Your task to perform on an android device: turn on location history Image 0: 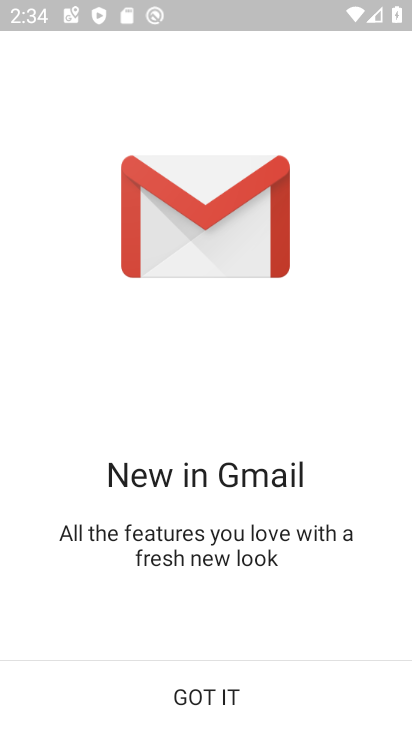
Step 0: press home button
Your task to perform on an android device: turn on location history Image 1: 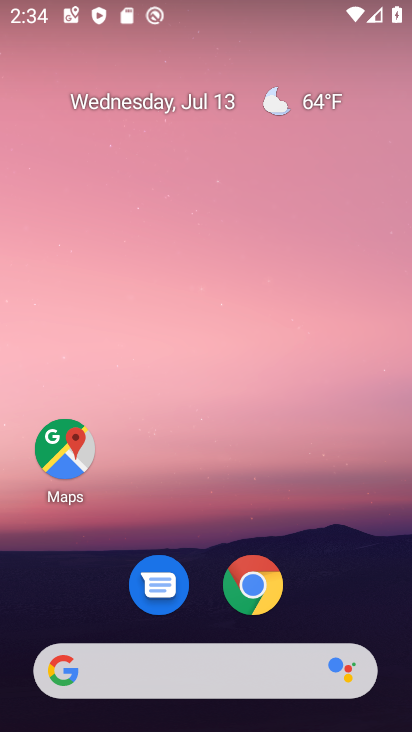
Step 1: click (67, 460)
Your task to perform on an android device: turn on location history Image 2: 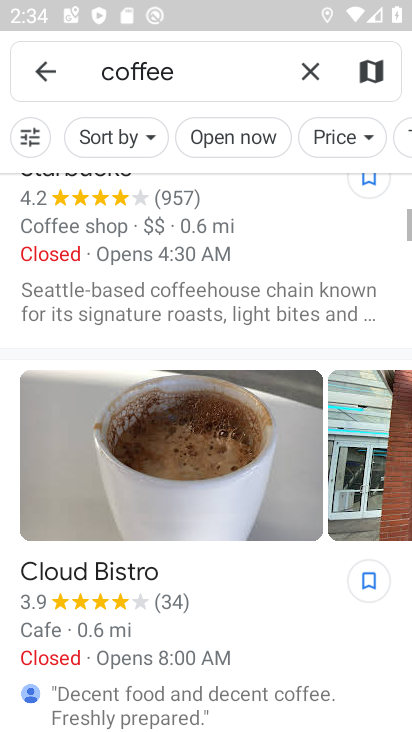
Step 2: click (49, 71)
Your task to perform on an android device: turn on location history Image 3: 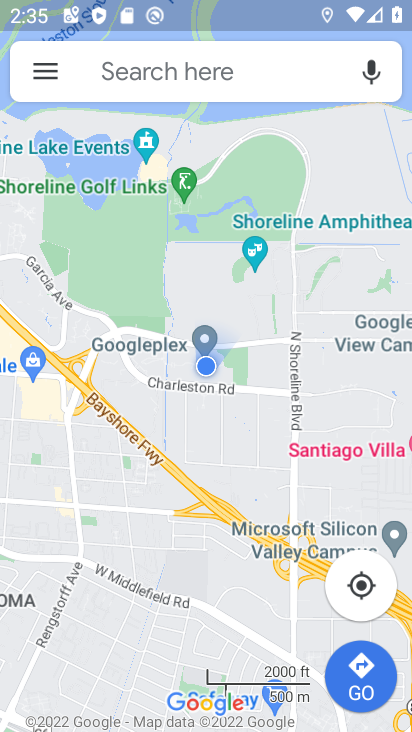
Step 3: click (49, 72)
Your task to perform on an android device: turn on location history Image 4: 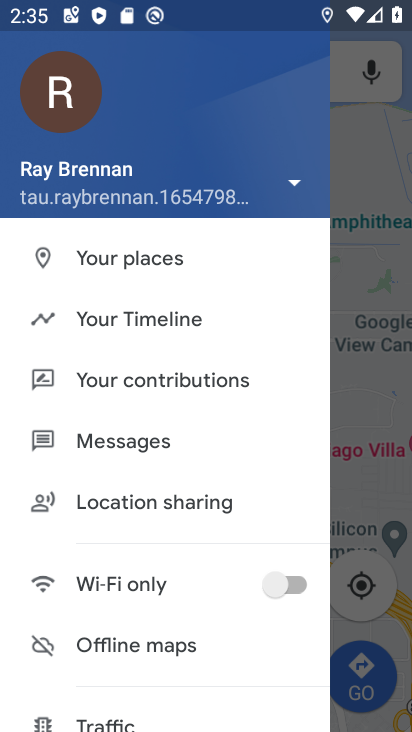
Step 4: click (171, 310)
Your task to perform on an android device: turn on location history Image 5: 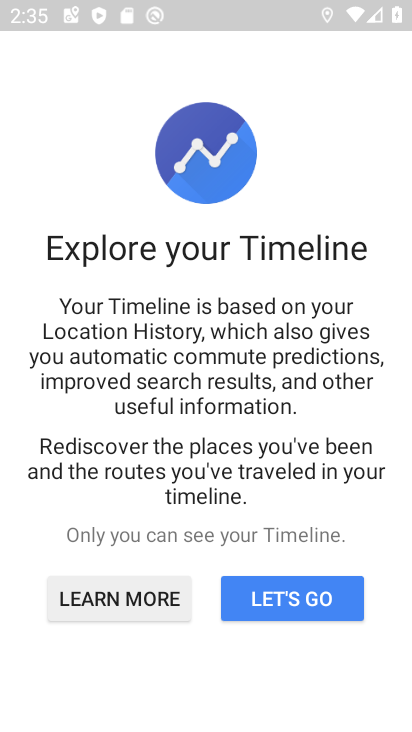
Step 5: click (283, 608)
Your task to perform on an android device: turn on location history Image 6: 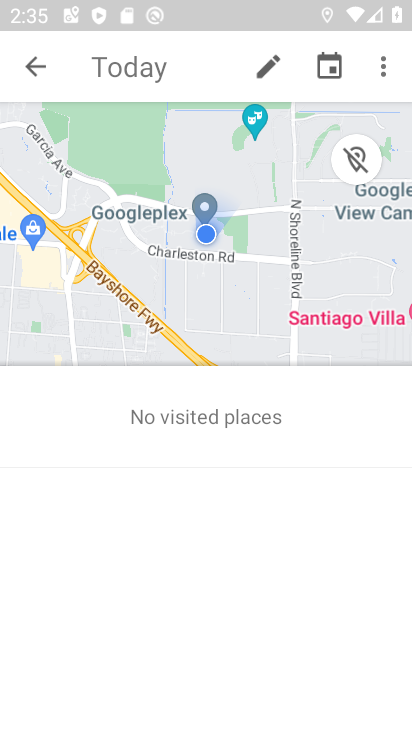
Step 6: click (381, 57)
Your task to perform on an android device: turn on location history Image 7: 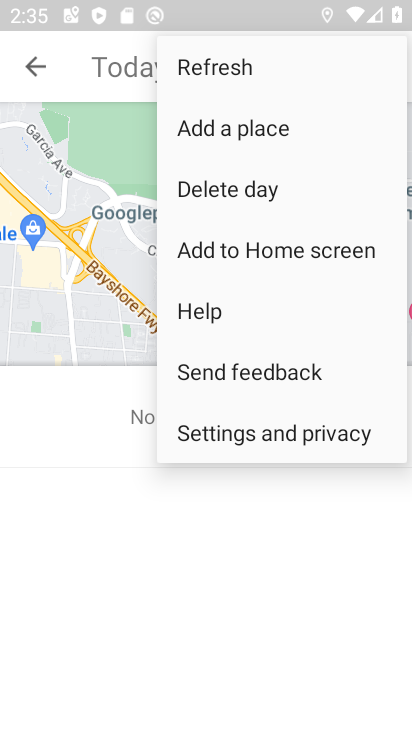
Step 7: click (263, 435)
Your task to perform on an android device: turn on location history Image 8: 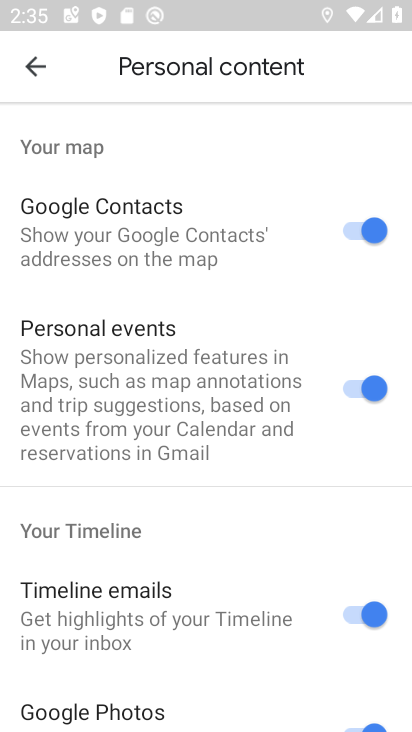
Step 8: drag from (172, 633) to (312, 51)
Your task to perform on an android device: turn on location history Image 9: 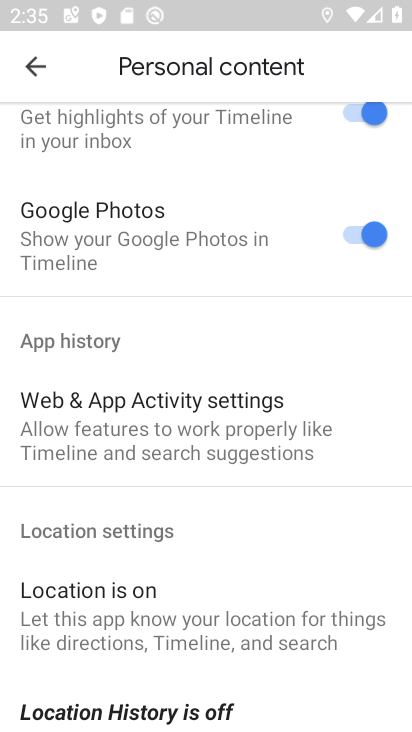
Step 9: drag from (213, 582) to (362, 74)
Your task to perform on an android device: turn on location history Image 10: 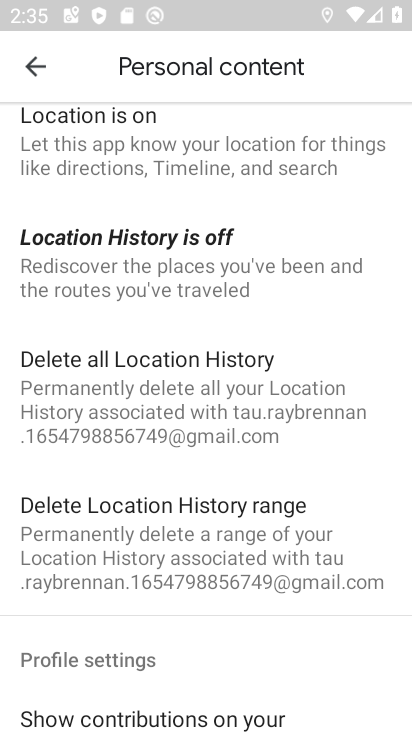
Step 10: click (178, 242)
Your task to perform on an android device: turn on location history Image 11: 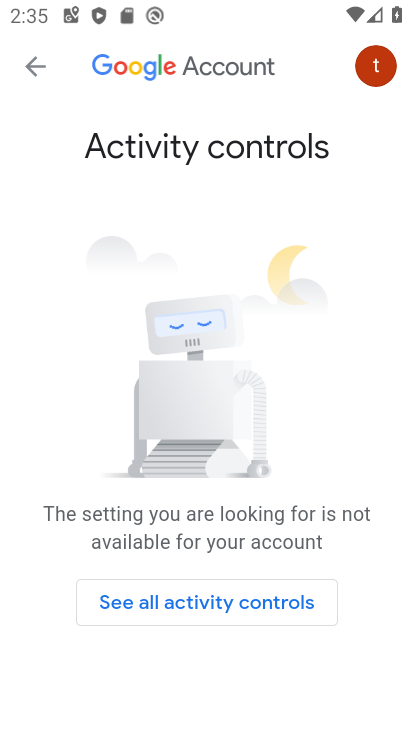
Step 11: task complete